Your task to perform on an android device: change the clock display to digital Image 0: 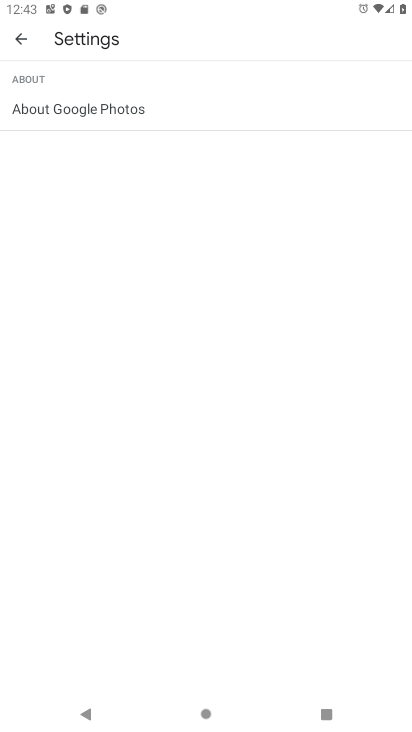
Step 0: press home button
Your task to perform on an android device: change the clock display to digital Image 1: 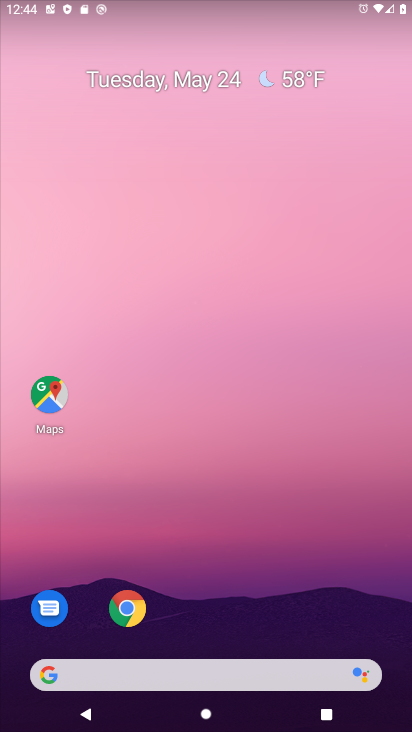
Step 1: drag from (239, 633) to (250, 91)
Your task to perform on an android device: change the clock display to digital Image 2: 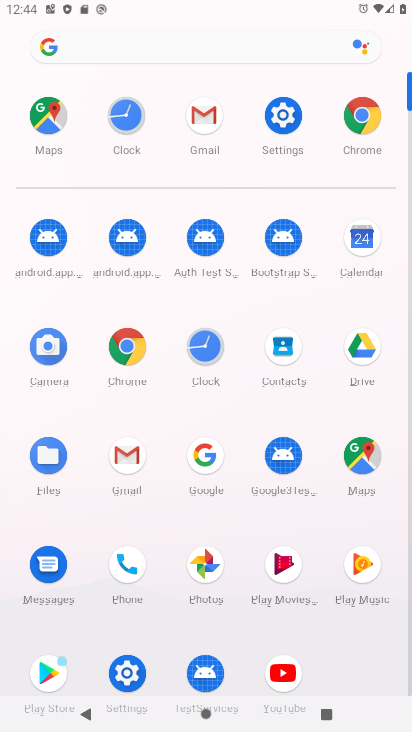
Step 2: click (203, 351)
Your task to perform on an android device: change the clock display to digital Image 3: 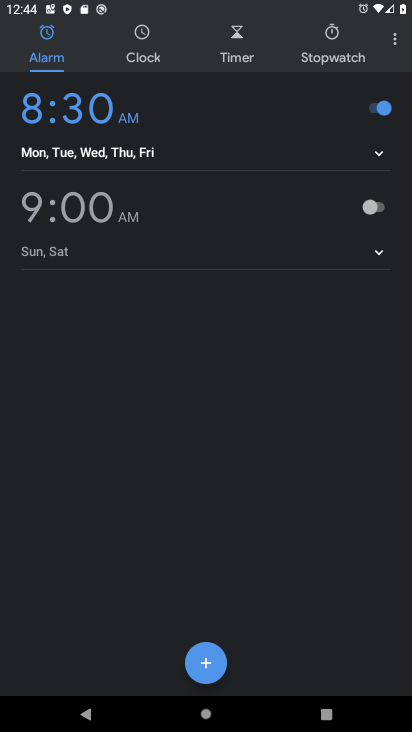
Step 3: click (381, 45)
Your task to perform on an android device: change the clock display to digital Image 4: 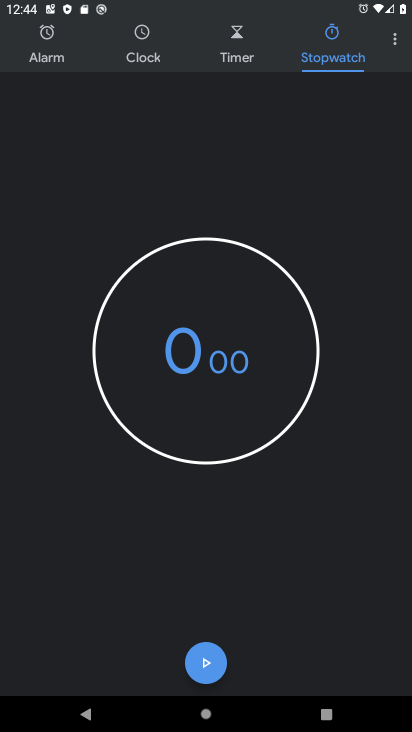
Step 4: click (394, 41)
Your task to perform on an android device: change the clock display to digital Image 5: 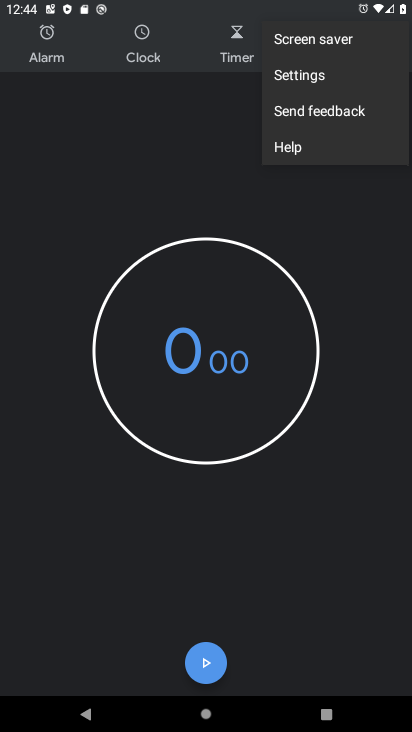
Step 5: click (291, 84)
Your task to perform on an android device: change the clock display to digital Image 6: 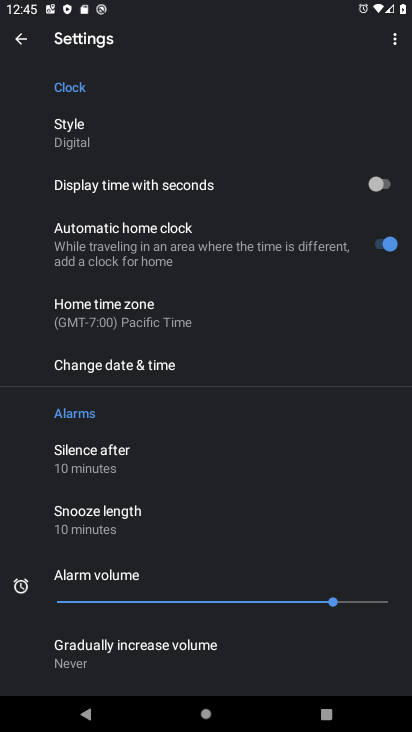
Step 6: click (132, 115)
Your task to perform on an android device: change the clock display to digital Image 7: 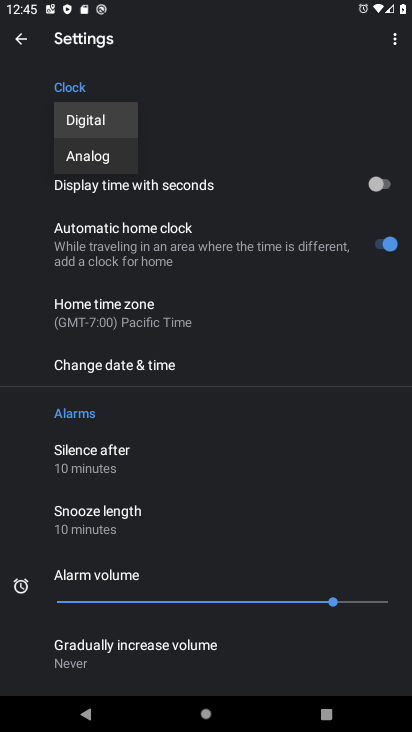
Step 7: click (127, 135)
Your task to perform on an android device: change the clock display to digital Image 8: 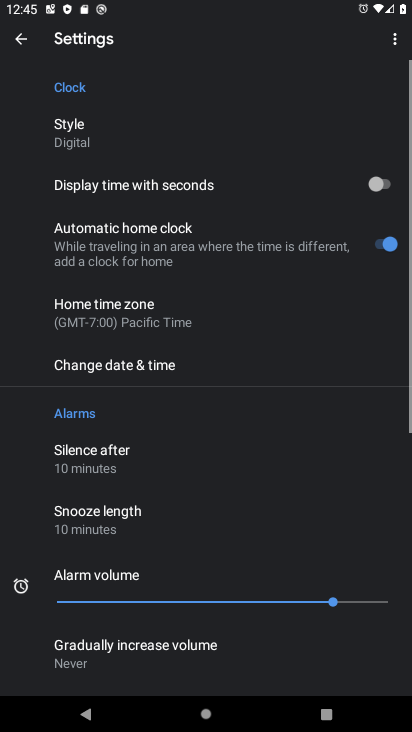
Step 8: task complete